Your task to perform on an android device: open wifi settings Image 0: 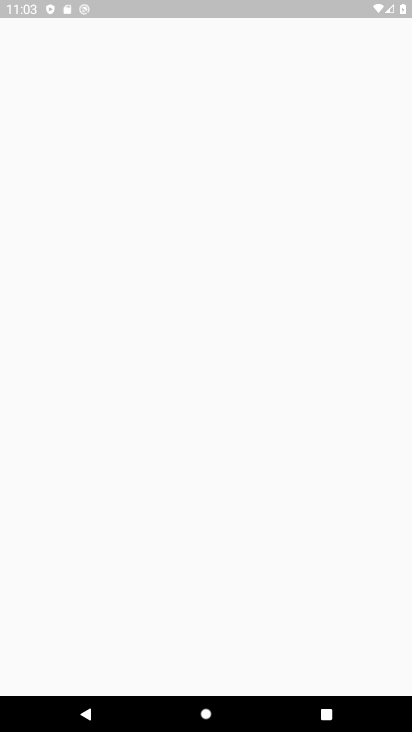
Step 0: press home button
Your task to perform on an android device: open wifi settings Image 1: 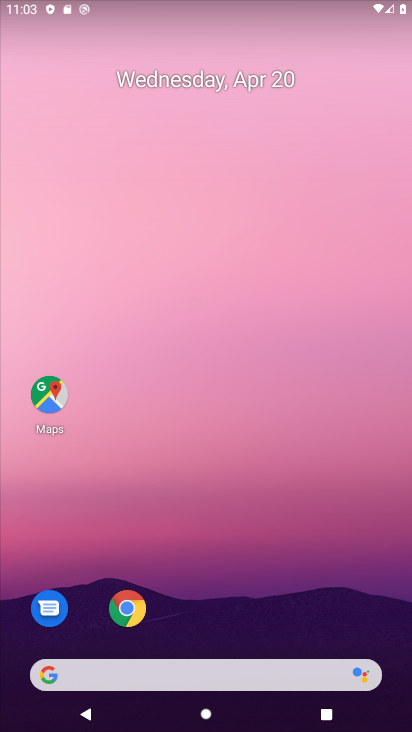
Step 1: drag from (128, 186) to (105, 123)
Your task to perform on an android device: open wifi settings Image 2: 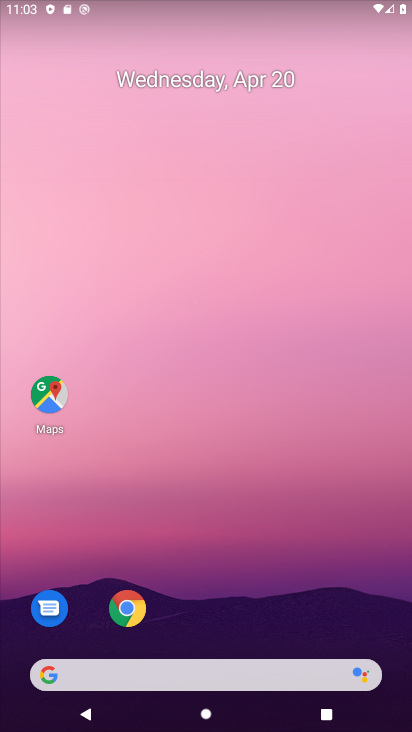
Step 2: drag from (189, 644) to (225, 154)
Your task to perform on an android device: open wifi settings Image 3: 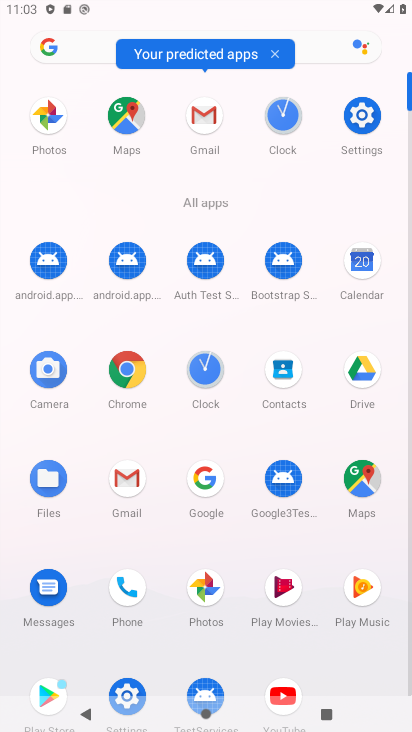
Step 3: click (360, 123)
Your task to perform on an android device: open wifi settings Image 4: 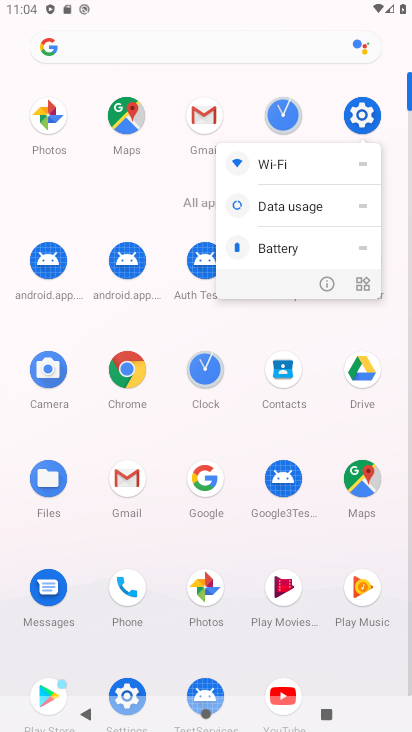
Step 4: click (361, 117)
Your task to perform on an android device: open wifi settings Image 5: 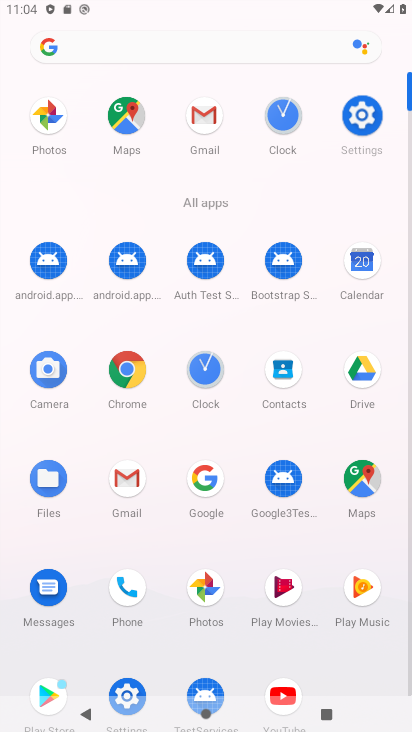
Step 5: click (361, 117)
Your task to perform on an android device: open wifi settings Image 6: 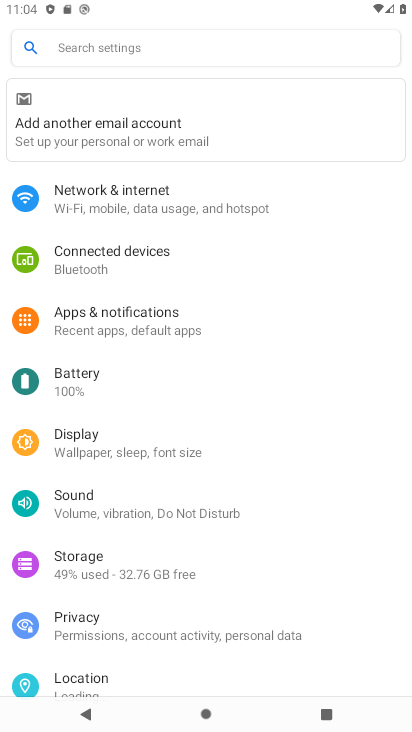
Step 6: click (211, 206)
Your task to perform on an android device: open wifi settings Image 7: 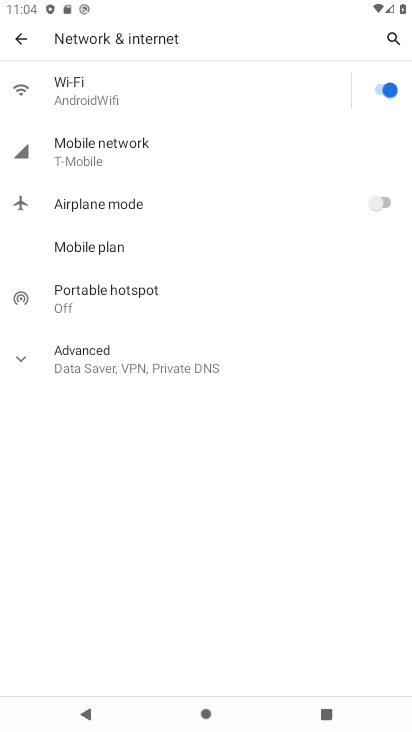
Step 7: click (63, 99)
Your task to perform on an android device: open wifi settings Image 8: 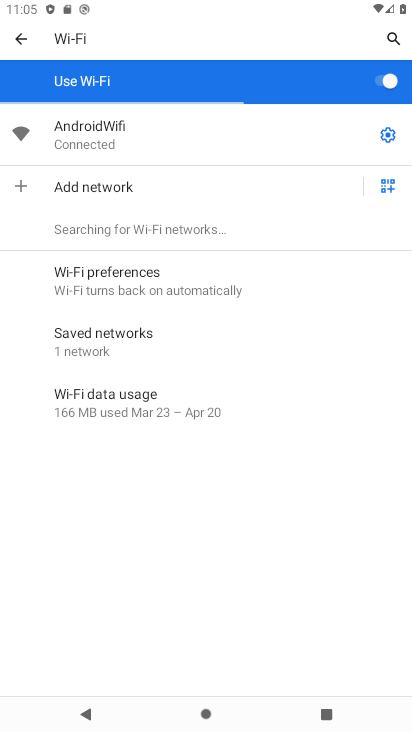
Step 8: task complete